Your task to perform on an android device: Search for logitech g pro on target, select the first entry, and add it to the cart. Image 0: 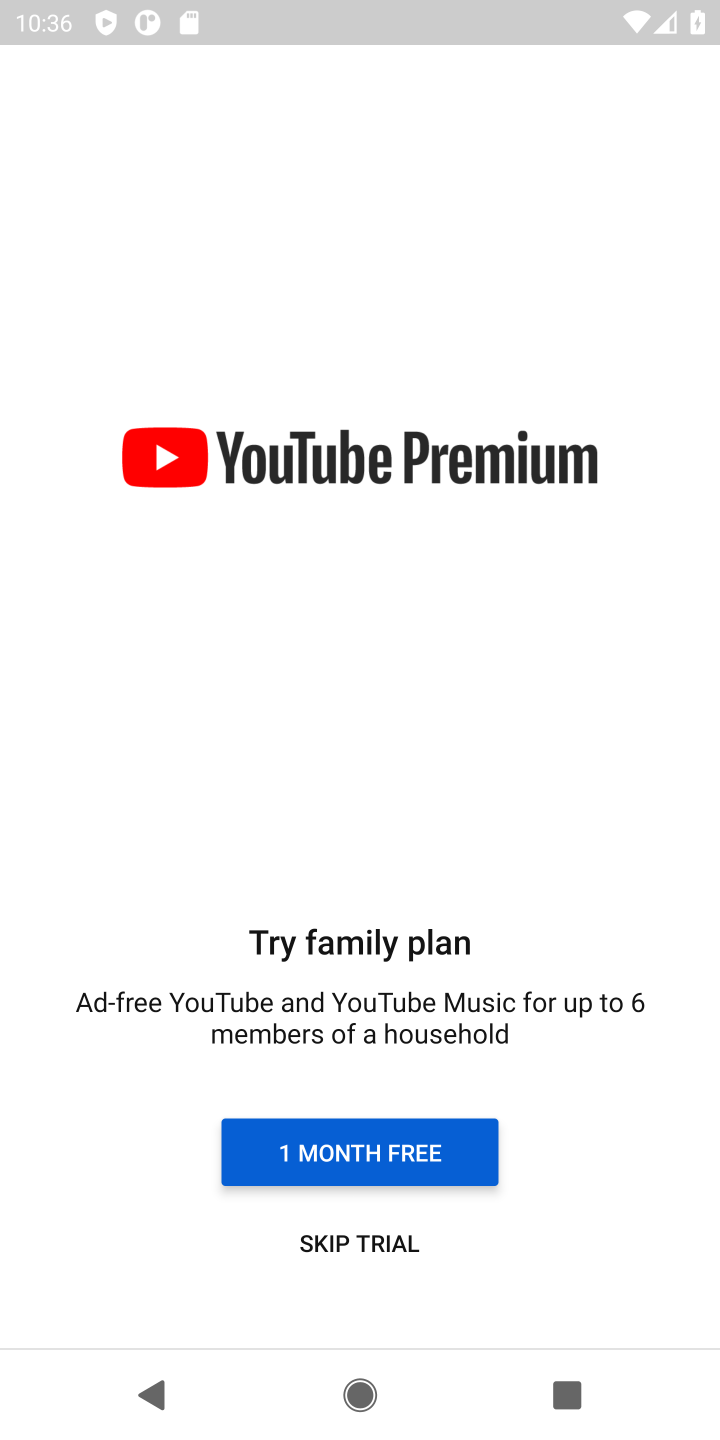
Step 0: press home button
Your task to perform on an android device: Search for logitech g pro on target, select the first entry, and add it to the cart. Image 1: 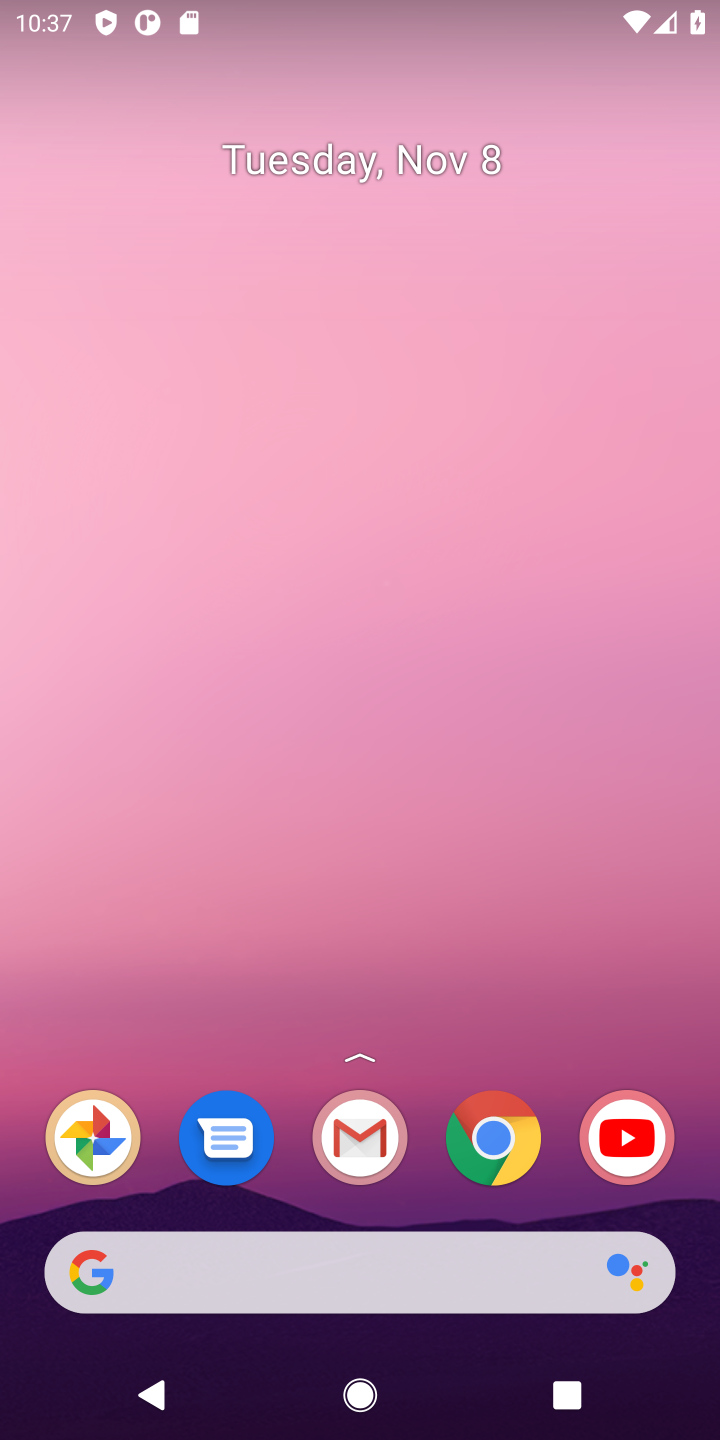
Step 1: click (513, 1149)
Your task to perform on an android device: Search for logitech g pro on target, select the first entry, and add it to the cart. Image 2: 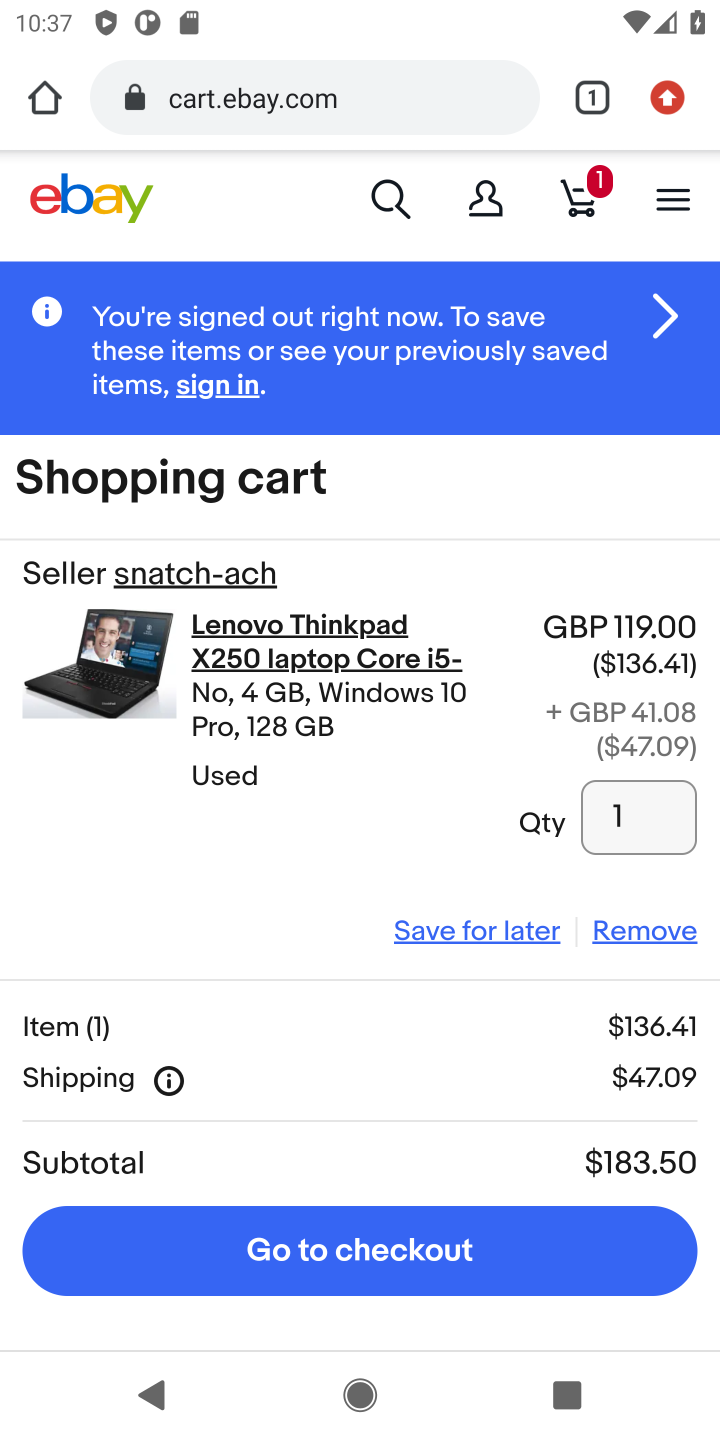
Step 2: click (305, 81)
Your task to perform on an android device: Search for logitech g pro on target, select the first entry, and add it to the cart. Image 3: 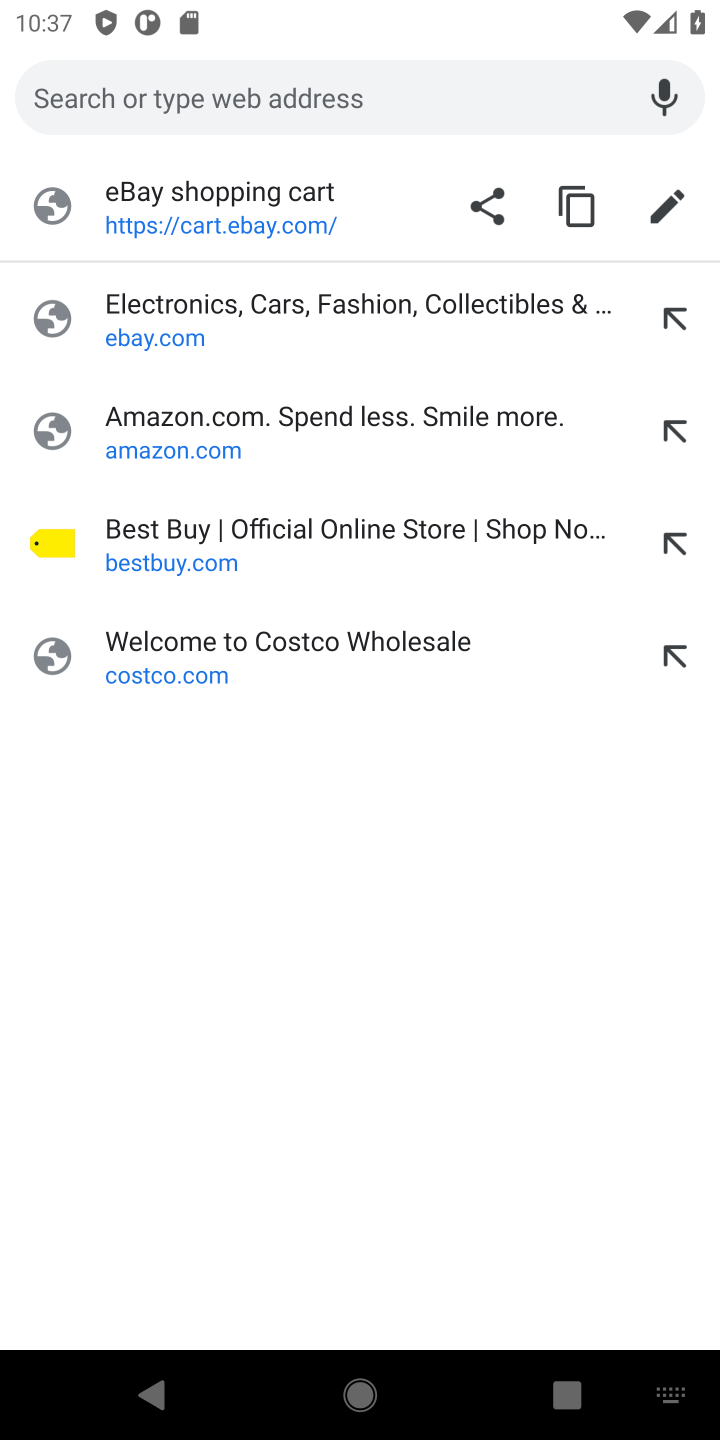
Step 3: type "target"
Your task to perform on an android device: Search for logitech g pro on target, select the first entry, and add it to the cart. Image 4: 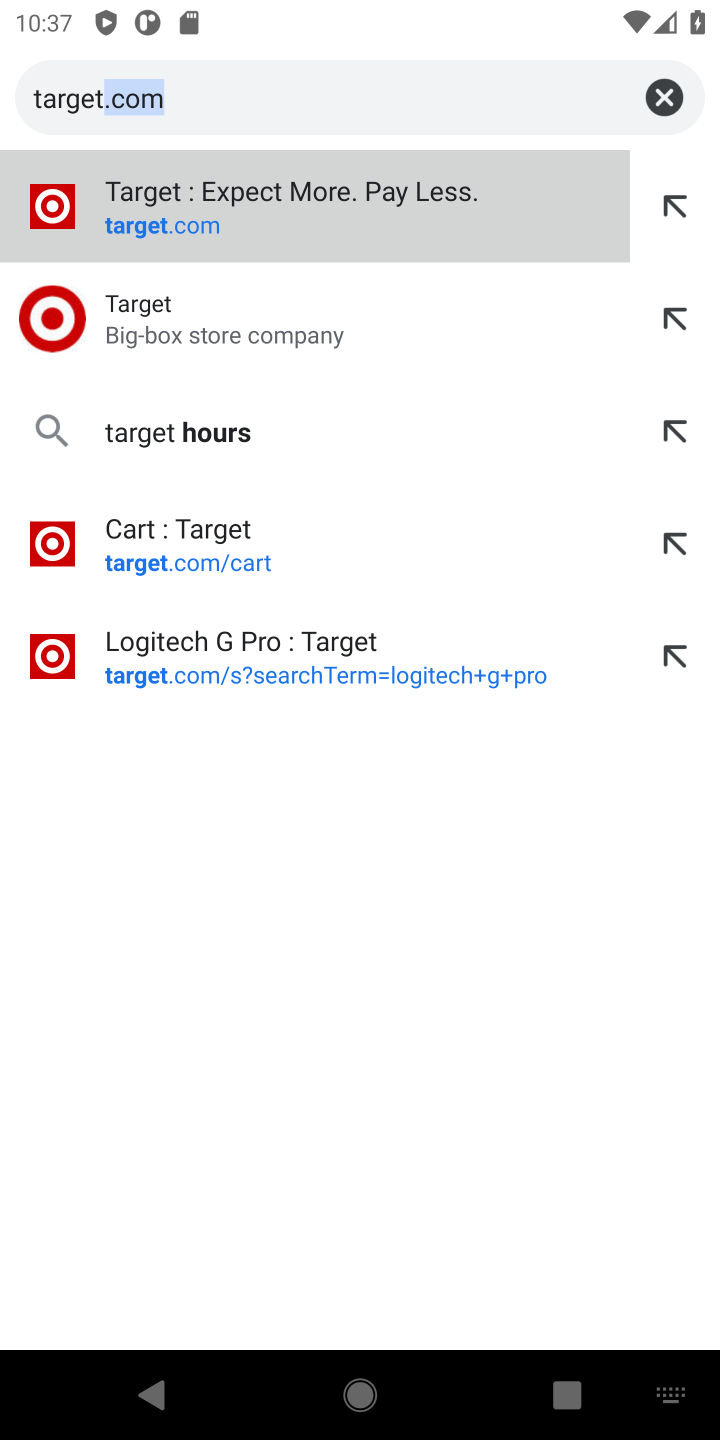
Step 4: press enter
Your task to perform on an android device: Search for logitech g pro on target, select the first entry, and add it to the cart. Image 5: 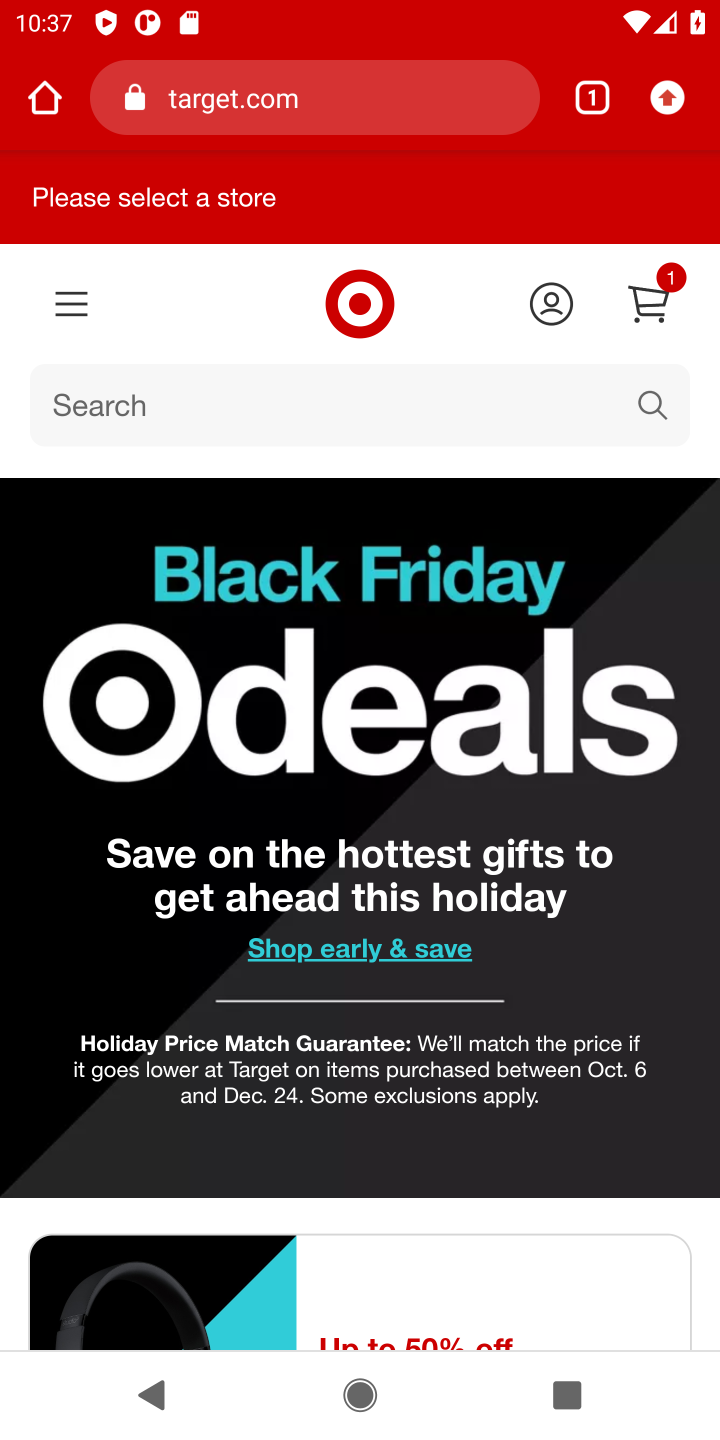
Step 5: click (190, 399)
Your task to perform on an android device: Search for logitech g pro on target, select the first entry, and add it to the cart. Image 6: 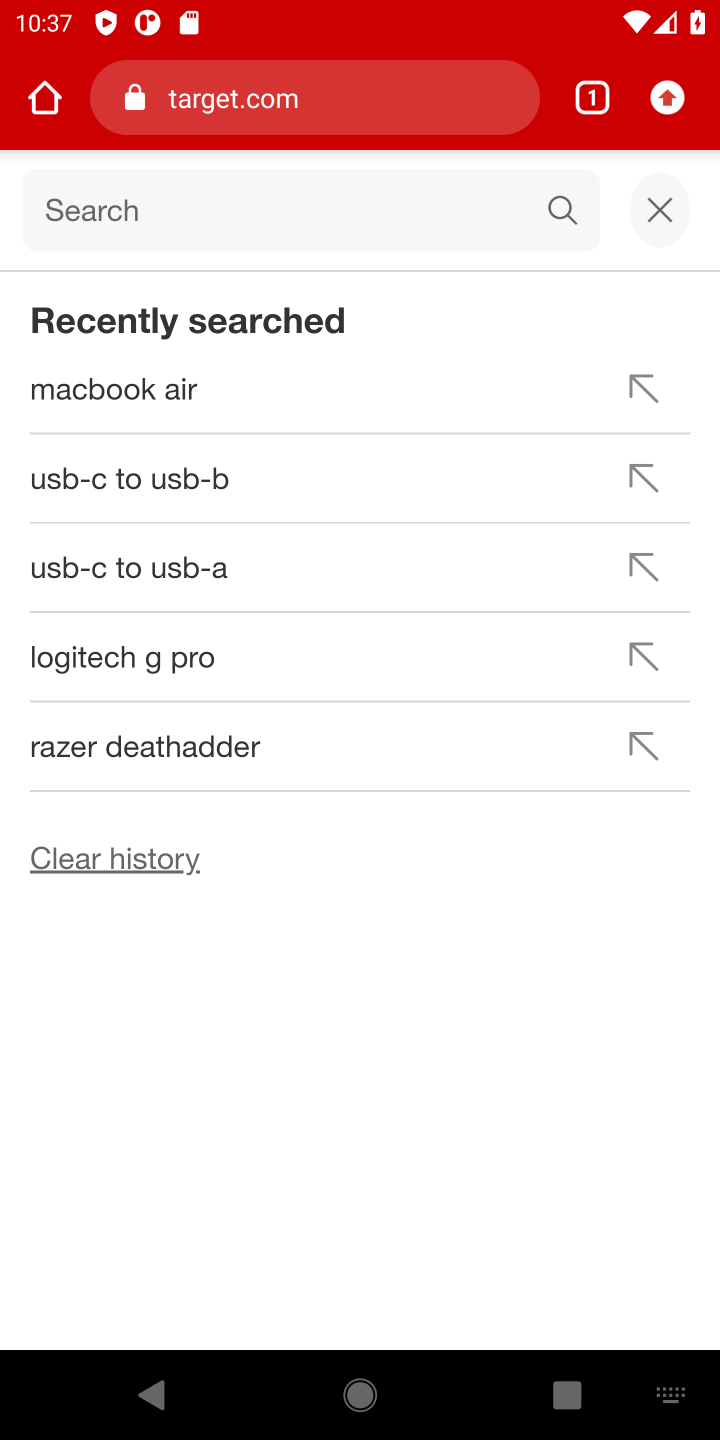
Step 6: type "logitech g pro"
Your task to perform on an android device: Search for logitech g pro on target, select the first entry, and add it to the cart. Image 7: 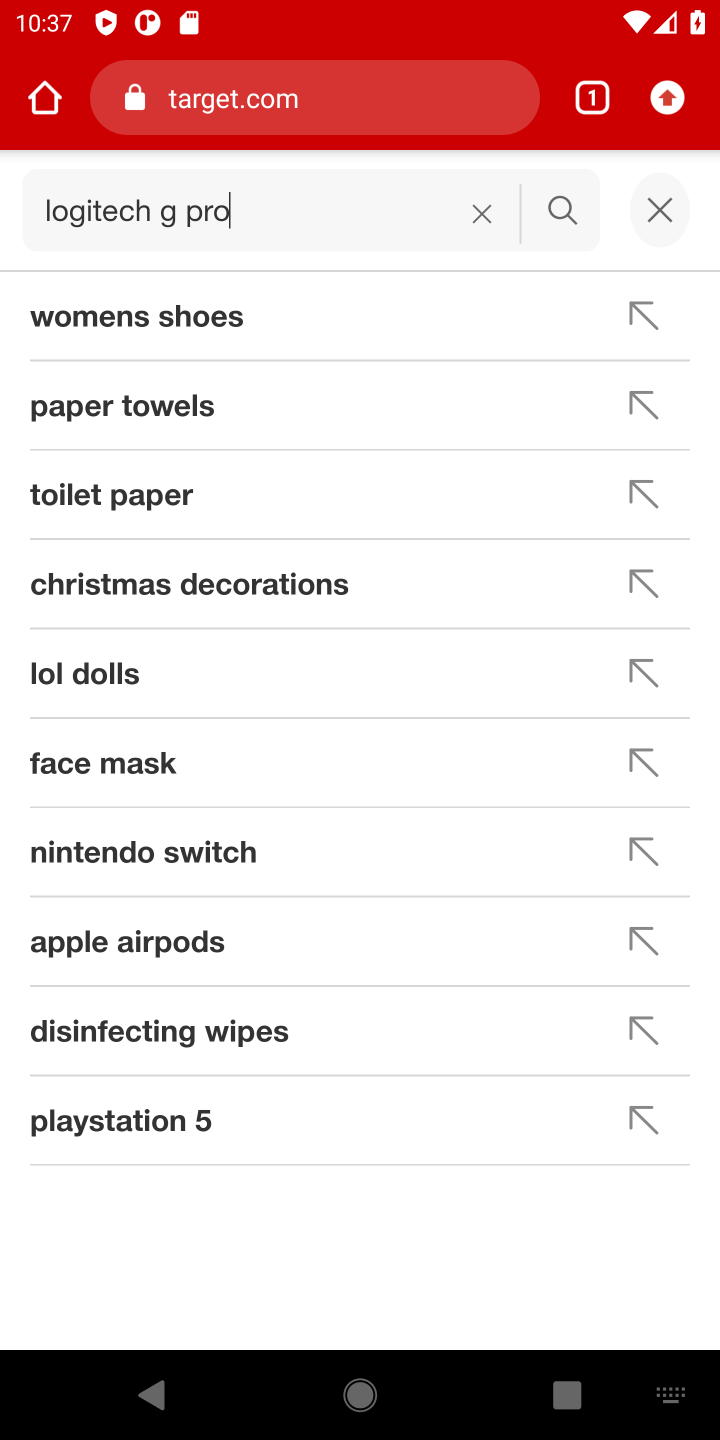
Step 7: press enter
Your task to perform on an android device: Search for logitech g pro on target, select the first entry, and add it to the cart. Image 8: 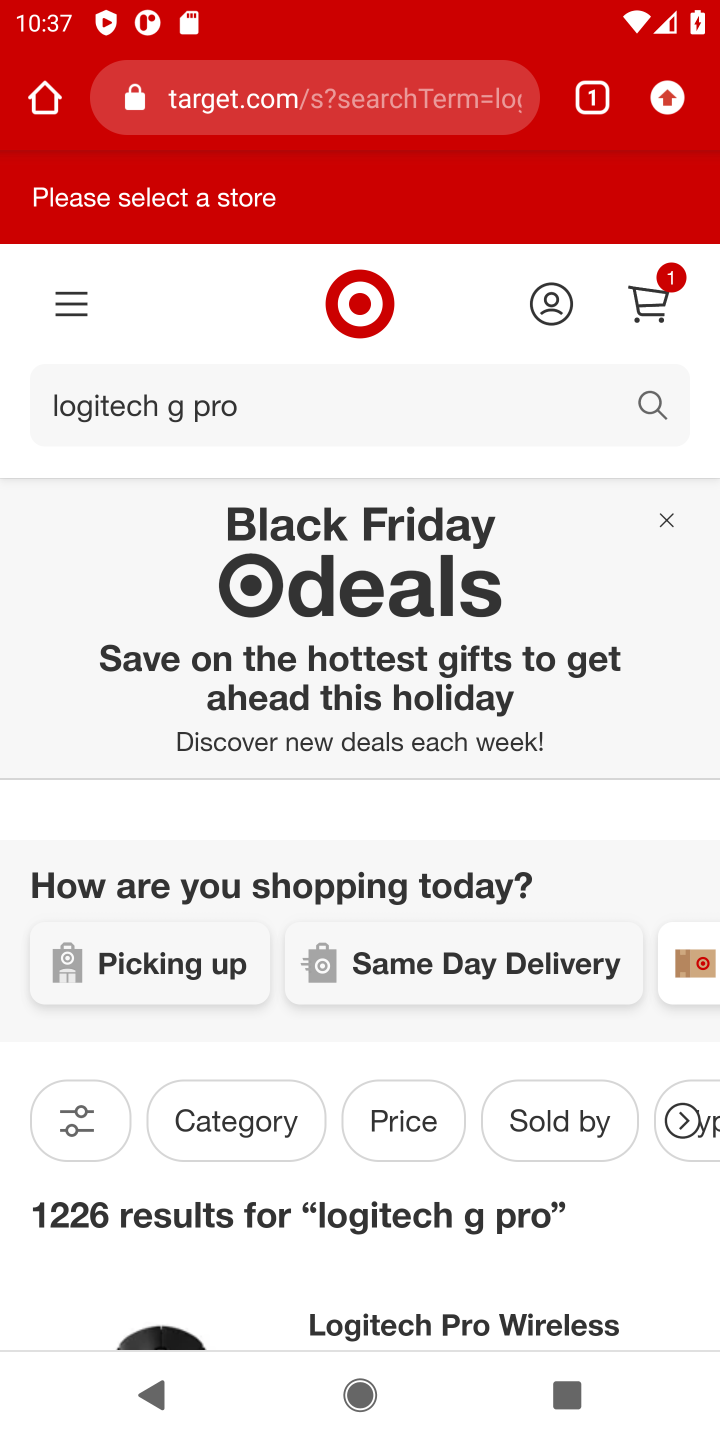
Step 8: task complete